Your task to perform on an android device: Go to calendar. Show me events next week Image 0: 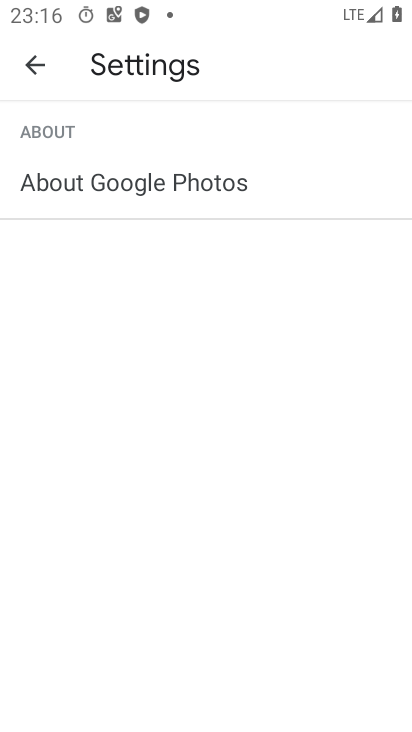
Step 0: press home button
Your task to perform on an android device: Go to calendar. Show me events next week Image 1: 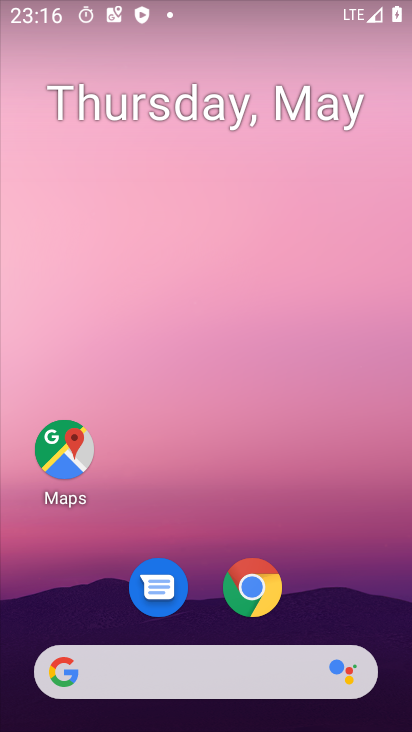
Step 1: drag from (355, 564) to (324, 16)
Your task to perform on an android device: Go to calendar. Show me events next week Image 2: 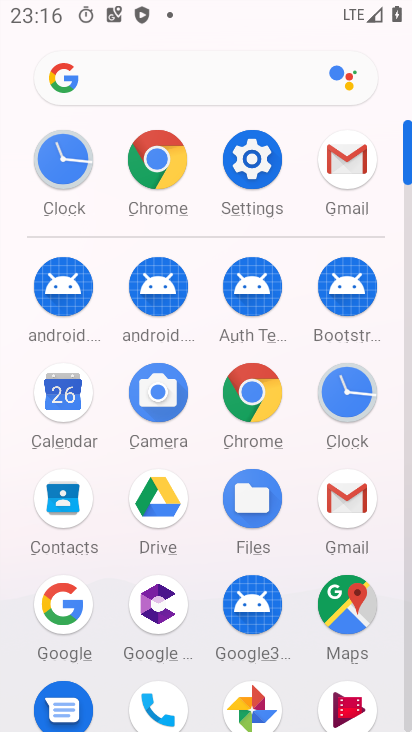
Step 2: click (59, 408)
Your task to perform on an android device: Go to calendar. Show me events next week Image 3: 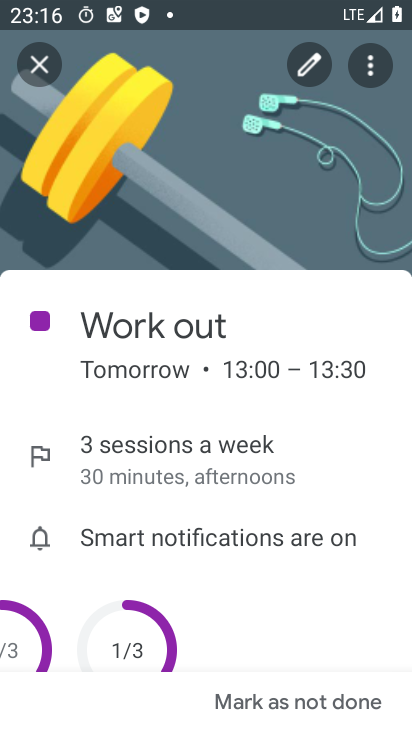
Step 3: click (37, 64)
Your task to perform on an android device: Go to calendar. Show me events next week Image 4: 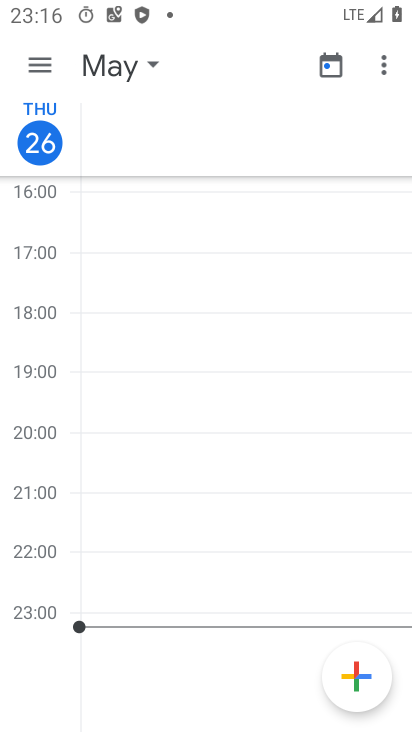
Step 4: click (37, 64)
Your task to perform on an android device: Go to calendar. Show me events next week Image 5: 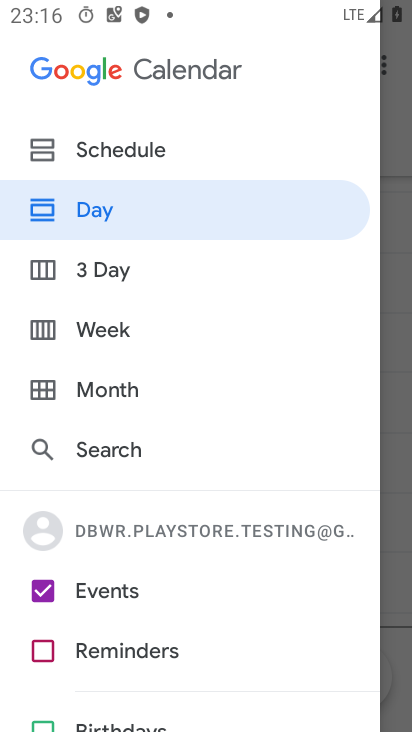
Step 5: click (75, 331)
Your task to perform on an android device: Go to calendar. Show me events next week Image 6: 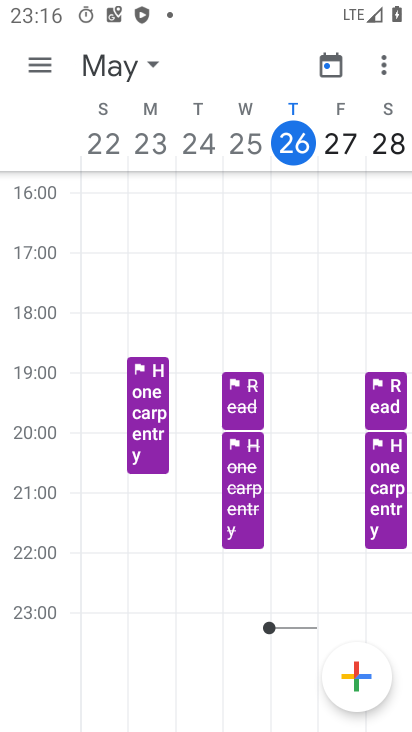
Step 6: task complete